Your task to perform on an android device: turn notification dots off Image 0: 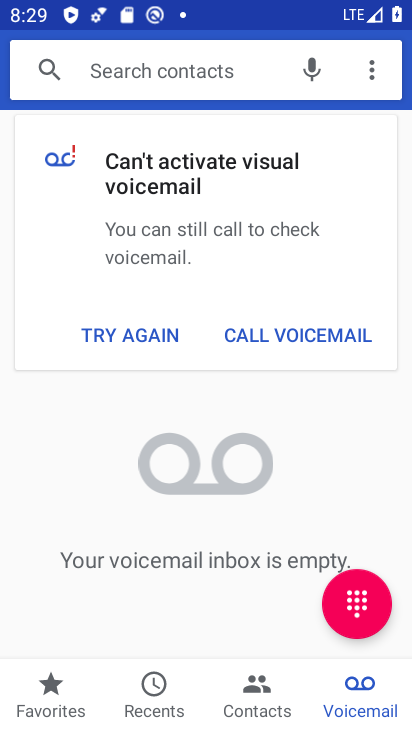
Step 0: press home button
Your task to perform on an android device: turn notification dots off Image 1: 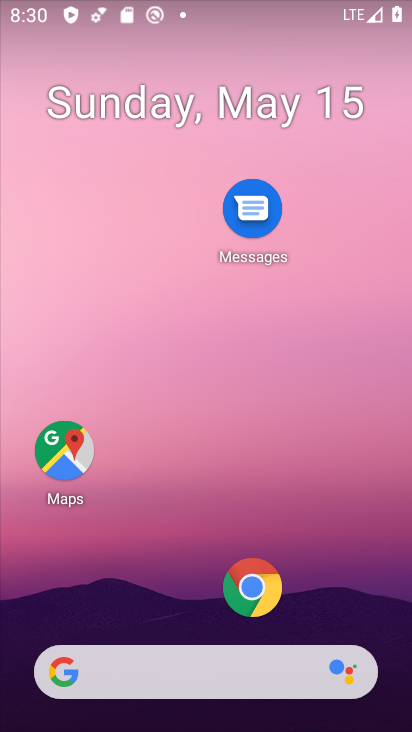
Step 1: drag from (145, 460) to (162, 296)
Your task to perform on an android device: turn notification dots off Image 2: 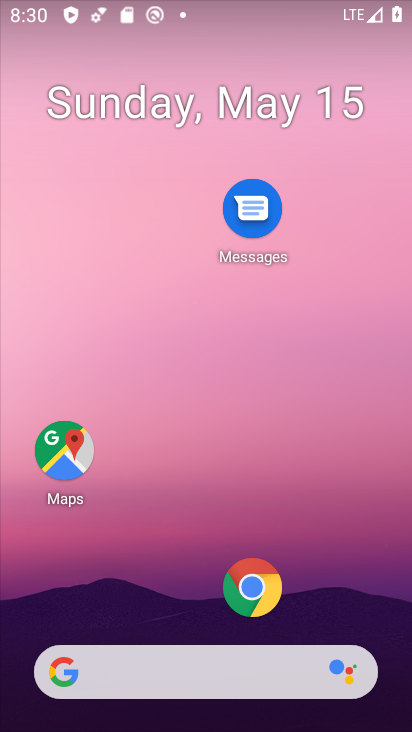
Step 2: drag from (158, 591) to (168, 219)
Your task to perform on an android device: turn notification dots off Image 3: 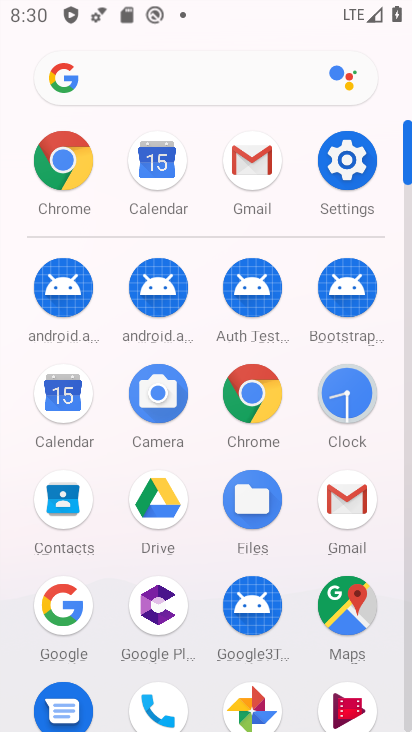
Step 3: click (346, 163)
Your task to perform on an android device: turn notification dots off Image 4: 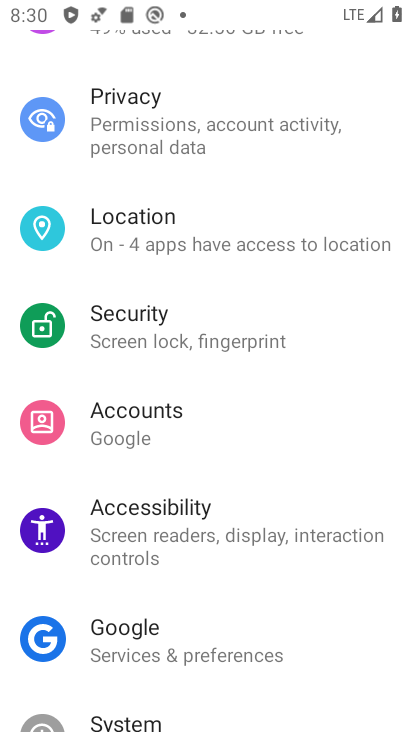
Step 4: drag from (239, 195) to (238, 549)
Your task to perform on an android device: turn notification dots off Image 5: 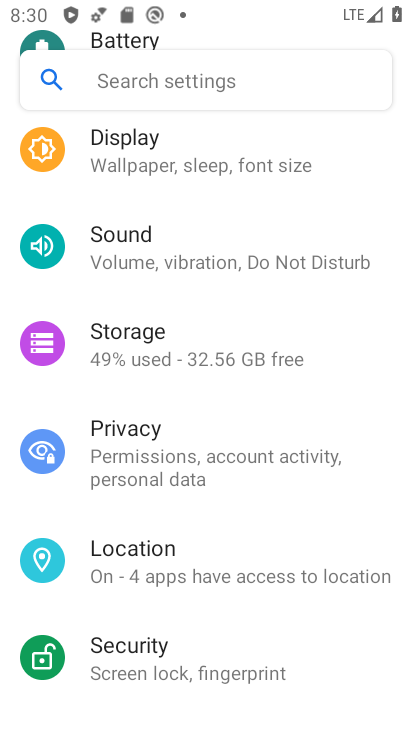
Step 5: drag from (204, 237) to (209, 626)
Your task to perform on an android device: turn notification dots off Image 6: 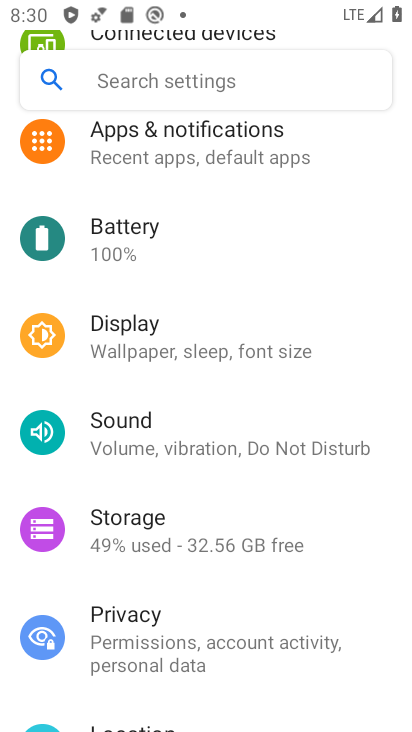
Step 6: drag from (199, 214) to (192, 435)
Your task to perform on an android device: turn notification dots off Image 7: 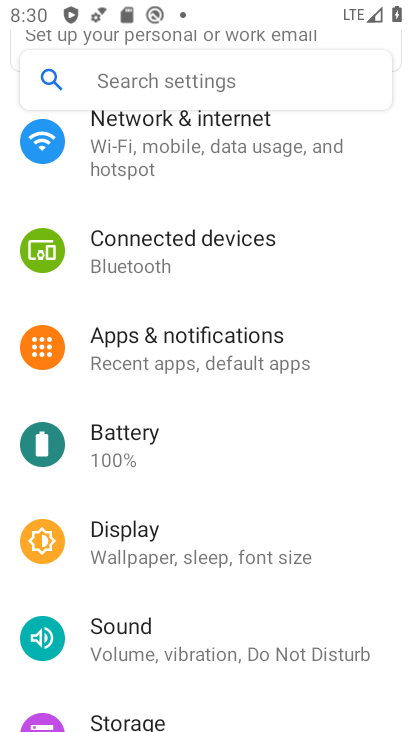
Step 7: click (179, 364)
Your task to perform on an android device: turn notification dots off Image 8: 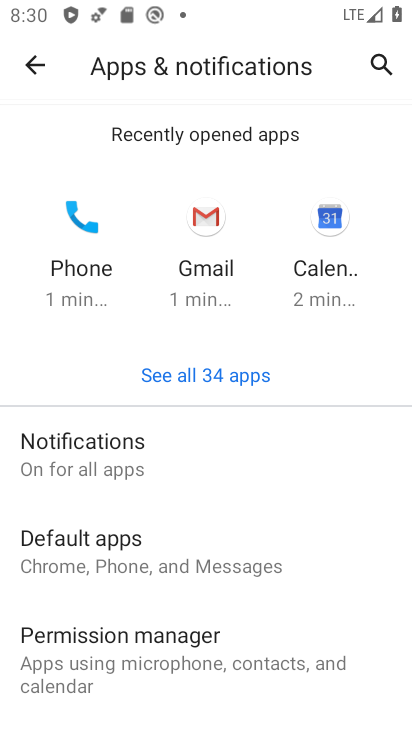
Step 8: drag from (225, 608) to (273, 245)
Your task to perform on an android device: turn notification dots off Image 9: 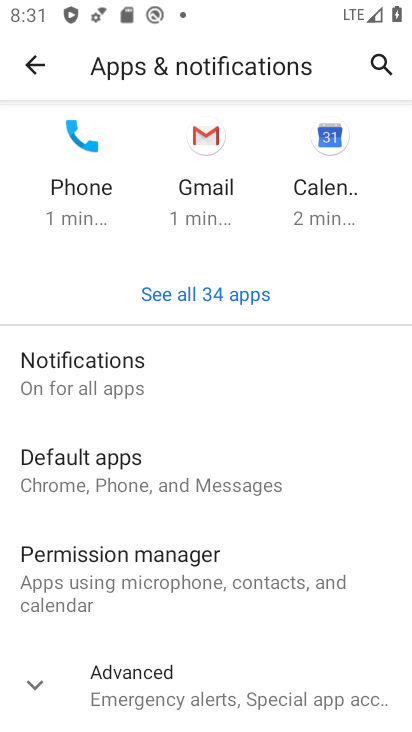
Step 9: click (137, 359)
Your task to perform on an android device: turn notification dots off Image 10: 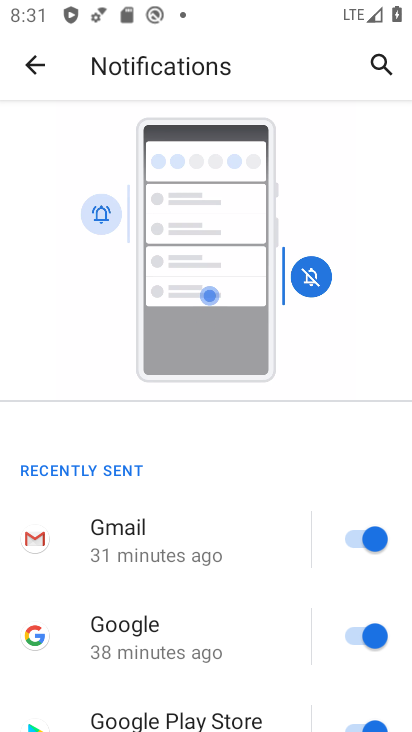
Step 10: drag from (157, 664) to (236, 286)
Your task to perform on an android device: turn notification dots off Image 11: 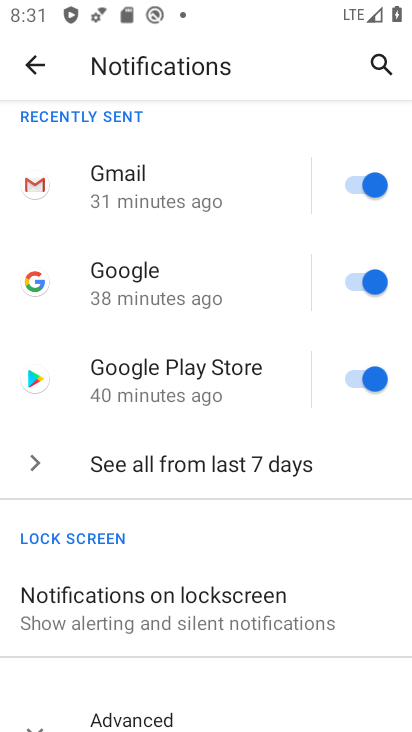
Step 11: drag from (213, 661) to (229, 347)
Your task to perform on an android device: turn notification dots off Image 12: 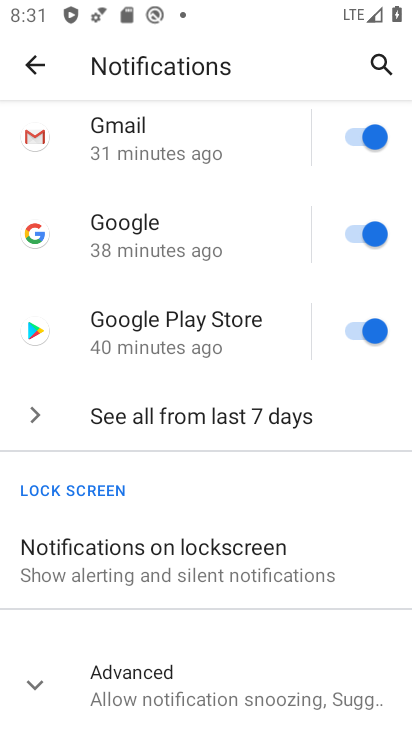
Step 12: click (37, 684)
Your task to perform on an android device: turn notification dots off Image 13: 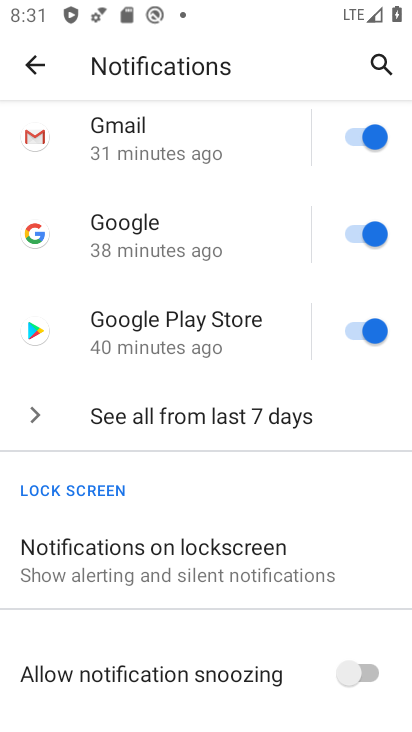
Step 13: task complete